Your task to perform on an android device: toggle pop-ups in chrome Image 0: 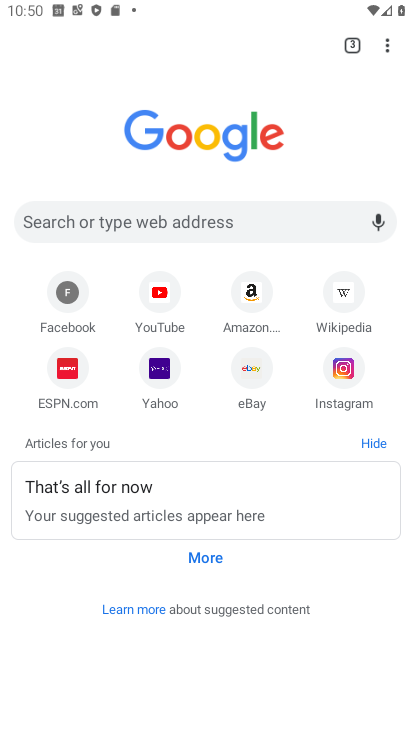
Step 0: press home button
Your task to perform on an android device: toggle pop-ups in chrome Image 1: 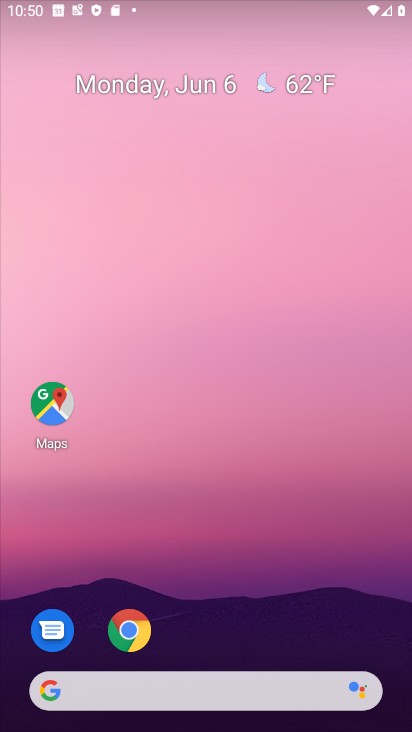
Step 1: drag from (360, 632) to (350, 177)
Your task to perform on an android device: toggle pop-ups in chrome Image 2: 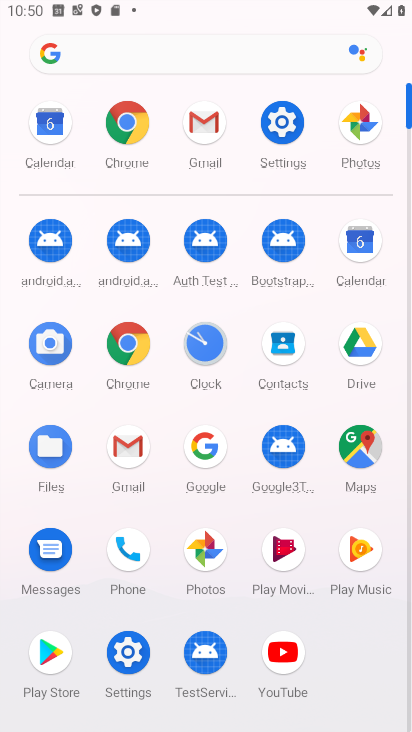
Step 2: click (142, 343)
Your task to perform on an android device: toggle pop-ups in chrome Image 3: 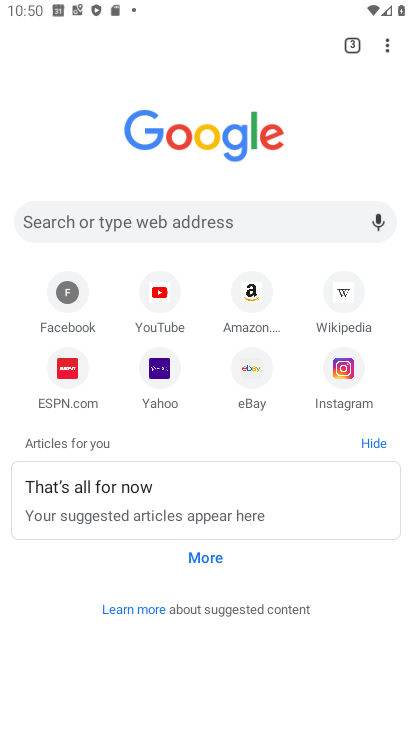
Step 3: drag from (389, 56) to (255, 381)
Your task to perform on an android device: toggle pop-ups in chrome Image 4: 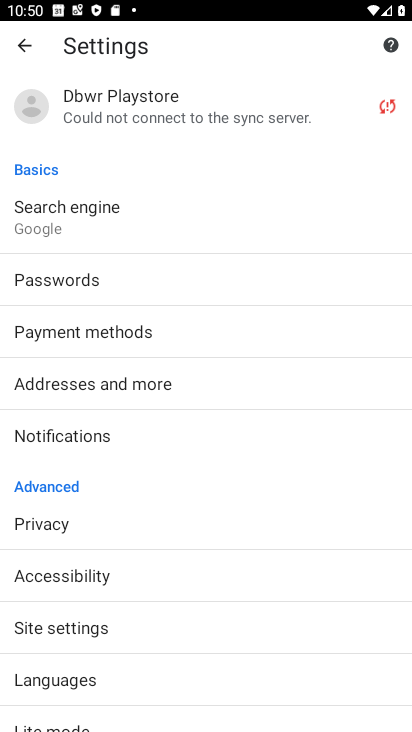
Step 4: click (130, 631)
Your task to perform on an android device: toggle pop-ups in chrome Image 5: 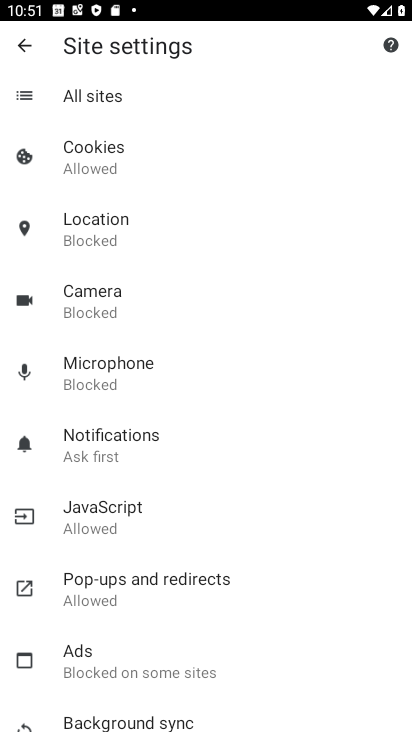
Step 5: drag from (229, 629) to (321, 203)
Your task to perform on an android device: toggle pop-ups in chrome Image 6: 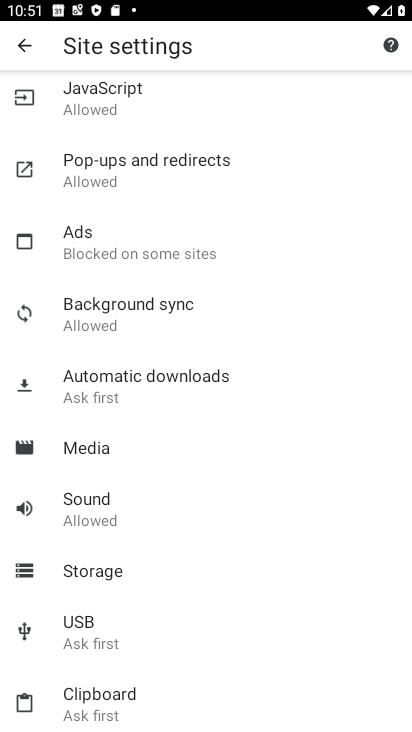
Step 6: click (205, 166)
Your task to perform on an android device: toggle pop-ups in chrome Image 7: 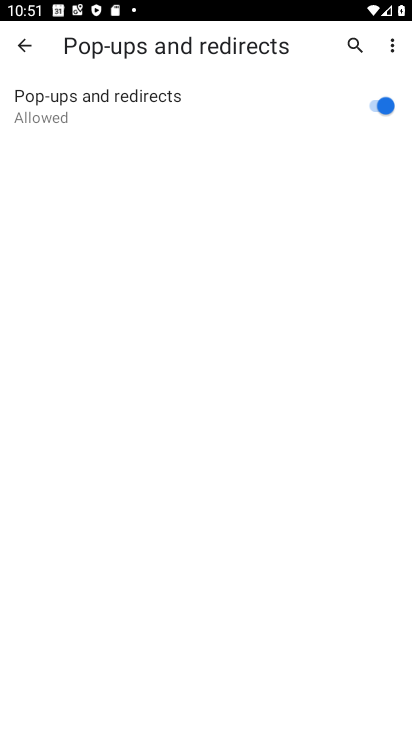
Step 7: click (390, 105)
Your task to perform on an android device: toggle pop-ups in chrome Image 8: 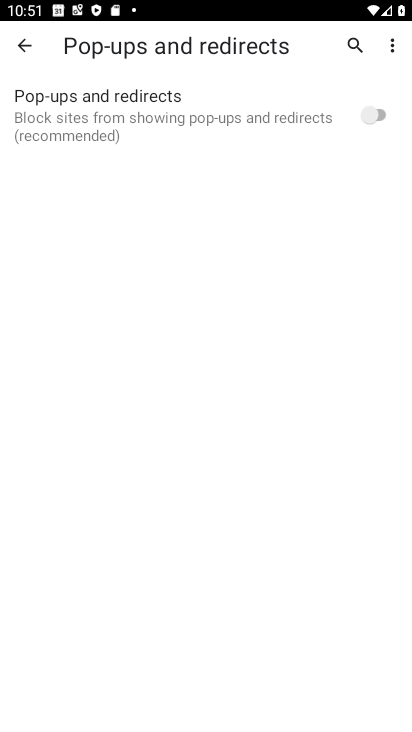
Step 8: task complete